Your task to perform on an android device: Open calendar and show me the fourth week of next month Image 0: 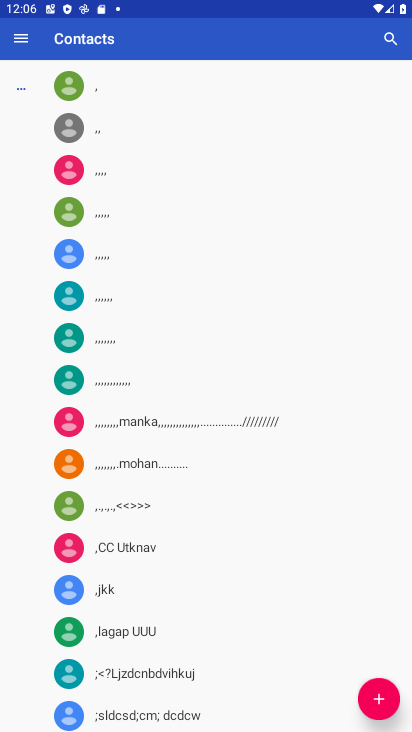
Step 0: press home button
Your task to perform on an android device: Open calendar and show me the fourth week of next month Image 1: 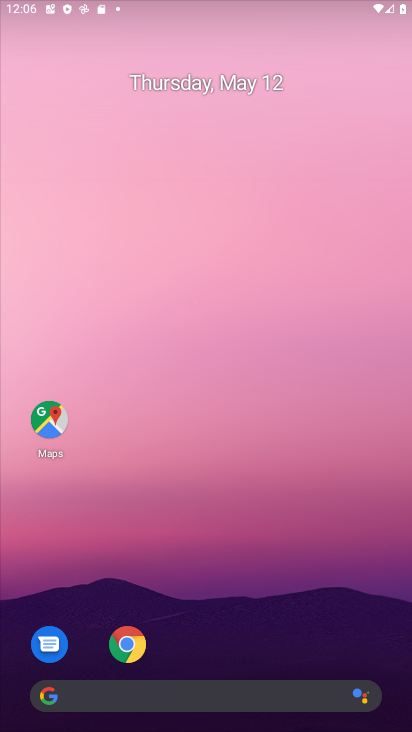
Step 1: drag from (283, 619) to (294, 246)
Your task to perform on an android device: Open calendar and show me the fourth week of next month Image 2: 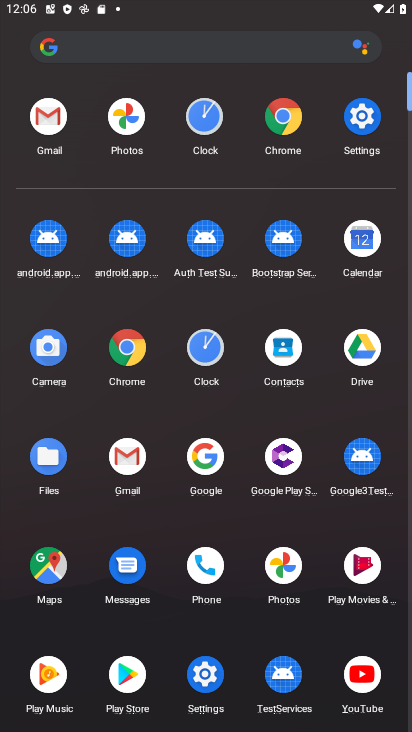
Step 2: click (369, 248)
Your task to perform on an android device: Open calendar and show me the fourth week of next month Image 3: 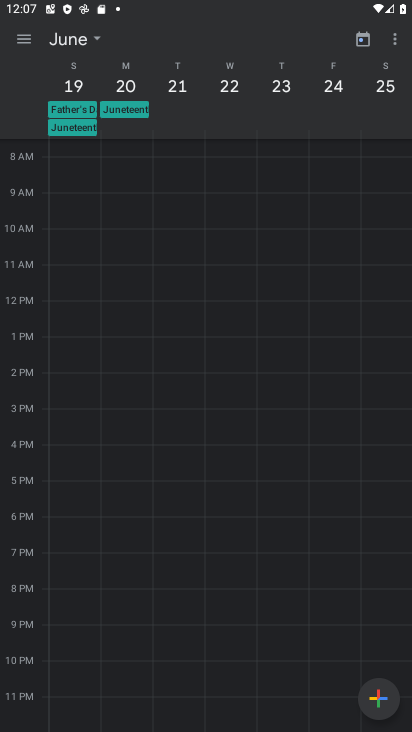
Step 3: click (75, 38)
Your task to perform on an android device: Open calendar and show me the fourth week of next month Image 4: 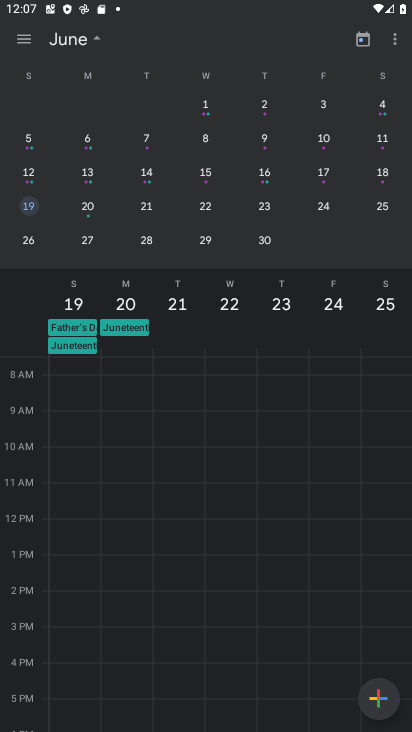
Step 4: drag from (382, 218) to (16, 229)
Your task to perform on an android device: Open calendar and show me the fourth week of next month Image 5: 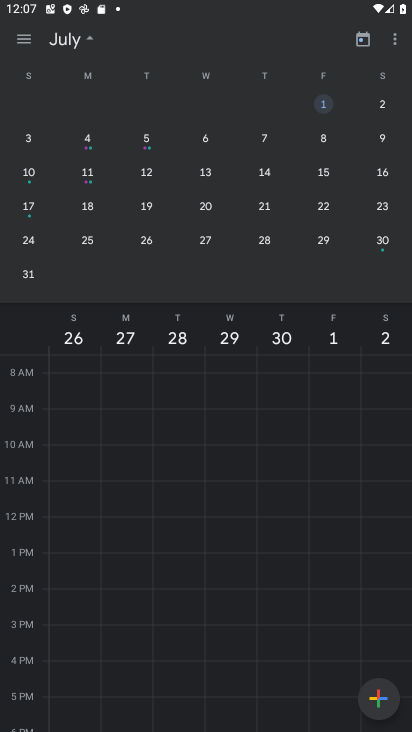
Step 5: drag from (21, 220) to (395, 221)
Your task to perform on an android device: Open calendar and show me the fourth week of next month Image 6: 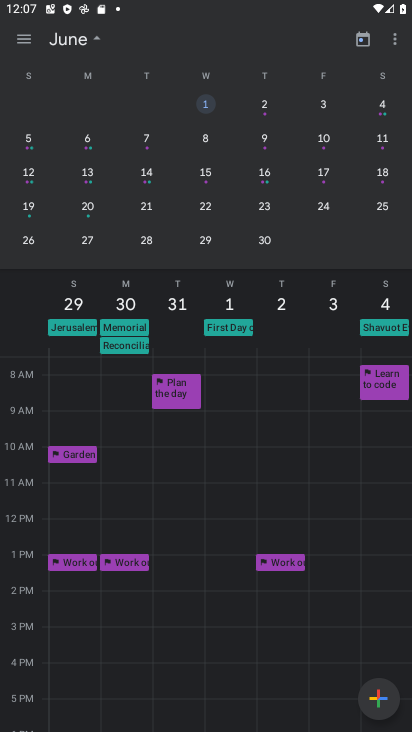
Step 6: click (21, 44)
Your task to perform on an android device: Open calendar and show me the fourth week of next month Image 7: 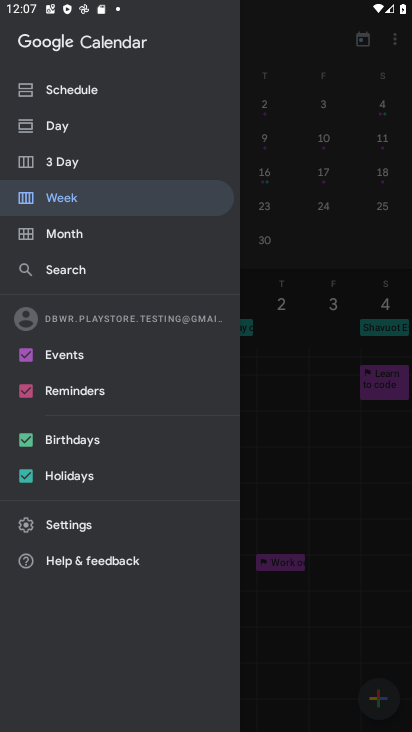
Step 7: click (61, 233)
Your task to perform on an android device: Open calendar and show me the fourth week of next month Image 8: 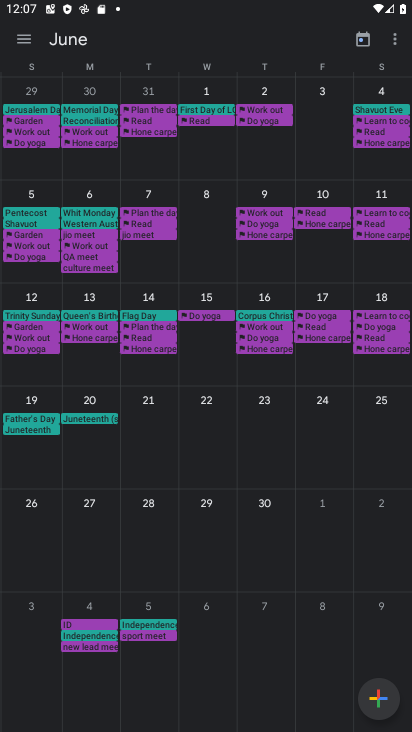
Step 8: click (224, 558)
Your task to perform on an android device: Open calendar and show me the fourth week of next month Image 9: 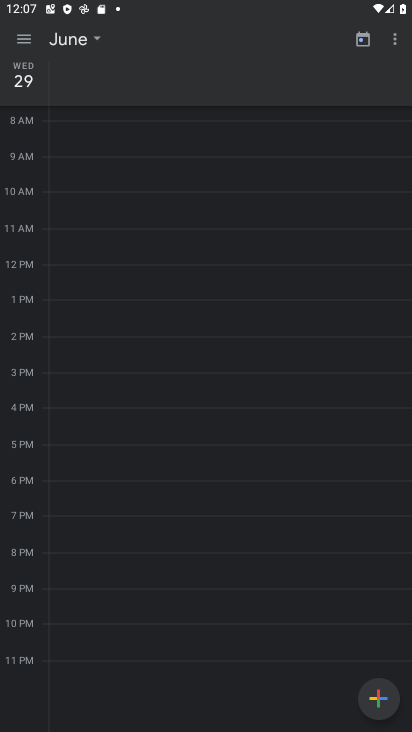
Step 9: task complete